Your task to perform on an android device: turn off javascript in the chrome app Image 0: 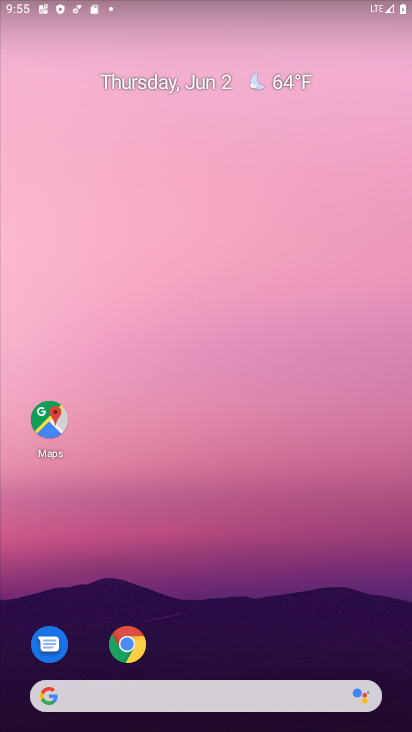
Step 0: press home button
Your task to perform on an android device: turn off javascript in the chrome app Image 1: 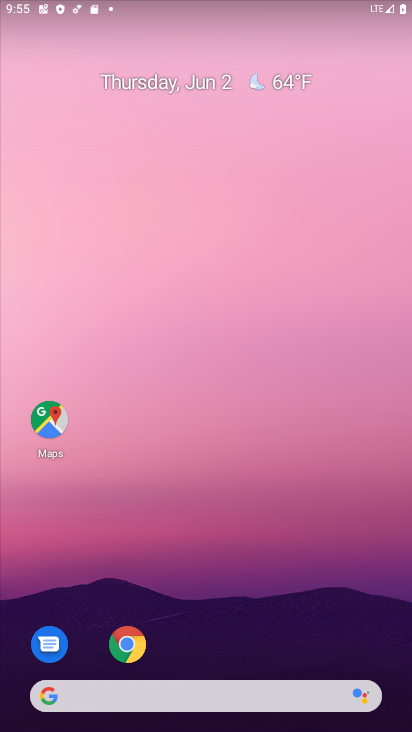
Step 1: click (119, 645)
Your task to perform on an android device: turn off javascript in the chrome app Image 2: 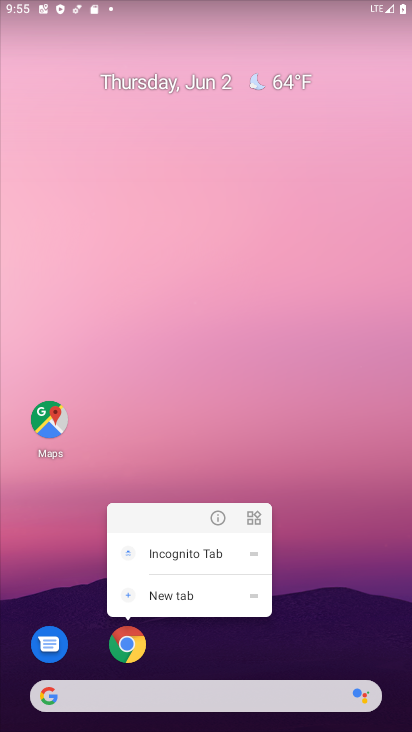
Step 2: click (119, 645)
Your task to perform on an android device: turn off javascript in the chrome app Image 3: 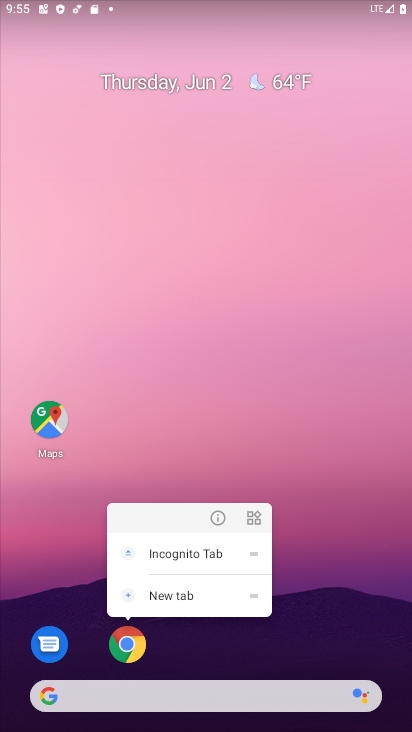
Step 3: click (119, 645)
Your task to perform on an android device: turn off javascript in the chrome app Image 4: 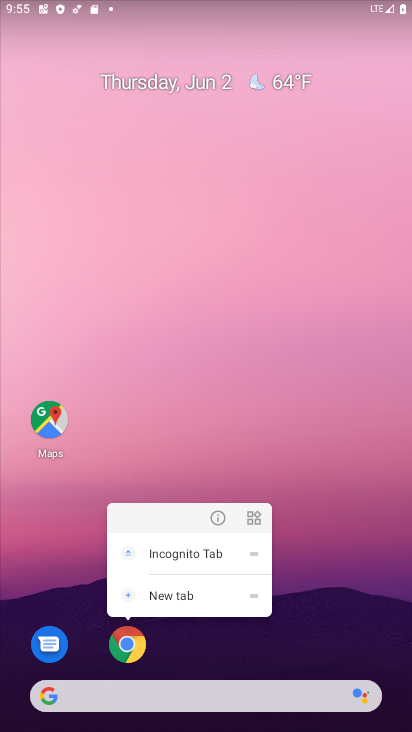
Step 4: click (148, 641)
Your task to perform on an android device: turn off javascript in the chrome app Image 5: 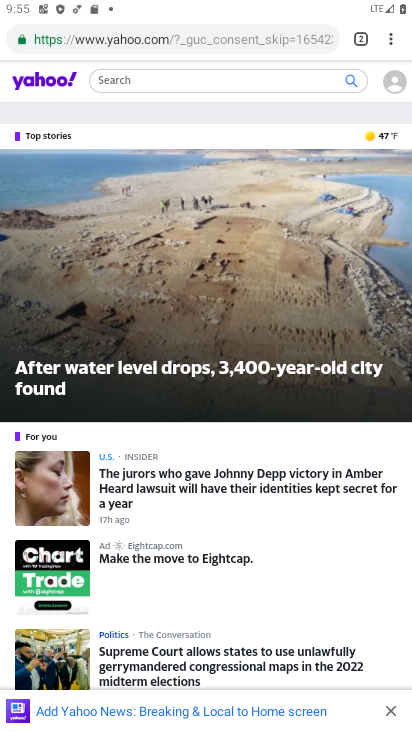
Step 5: click (385, 38)
Your task to perform on an android device: turn off javascript in the chrome app Image 6: 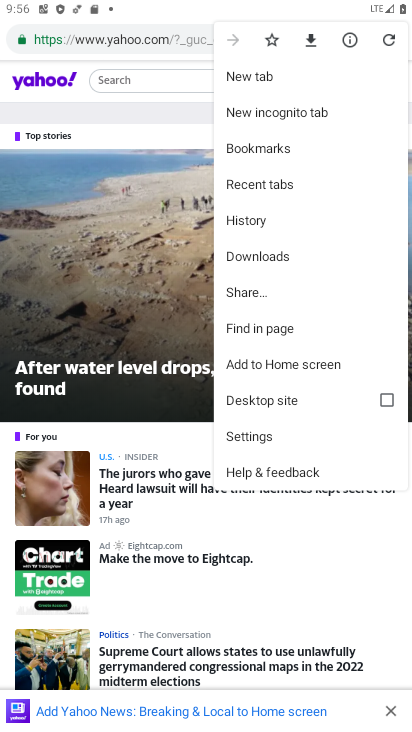
Step 6: click (270, 440)
Your task to perform on an android device: turn off javascript in the chrome app Image 7: 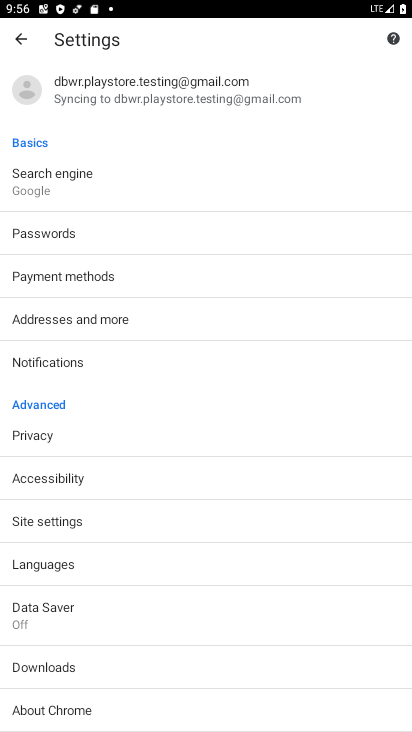
Step 7: click (65, 530)
Your task to perform on an android device: turn off javascript in the chrome app Image 8: 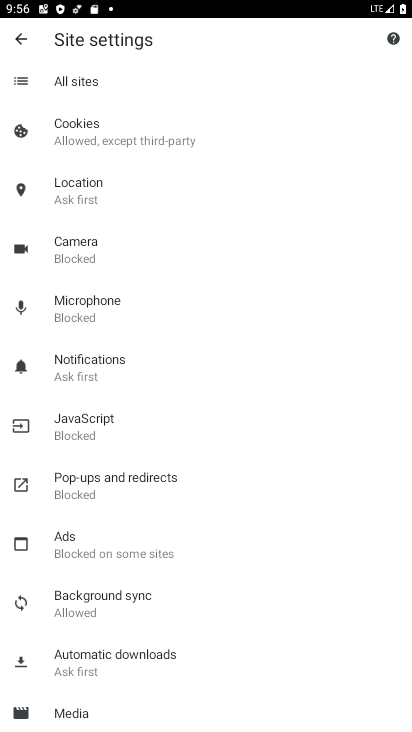
Step 8: click (61, 422)
Your task to perform on an android device: turn off javascript in the chrome app Image 9: 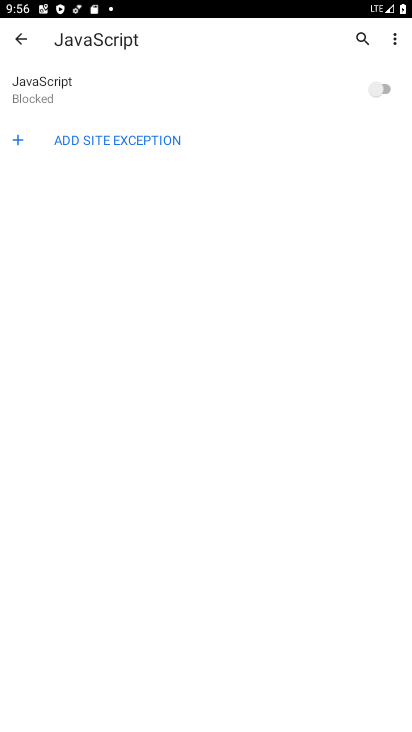
Step 9: click (344, 93)
Your task to perform on an android device: turn off javascript in the chrome app Image 10: 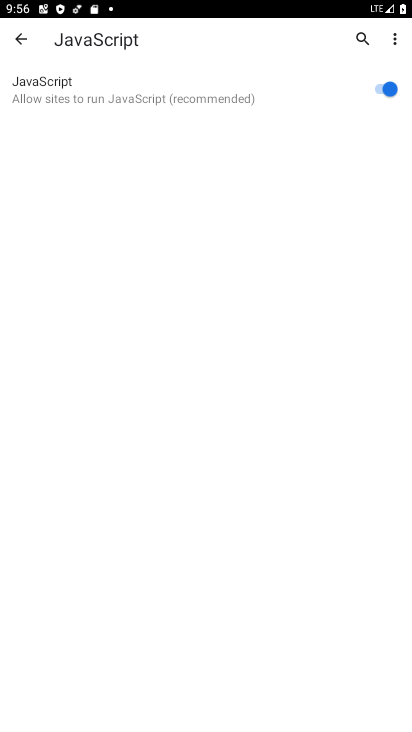
Step 10: task complete